Your task to perform on an android device: change the clock display to digital Image 0: 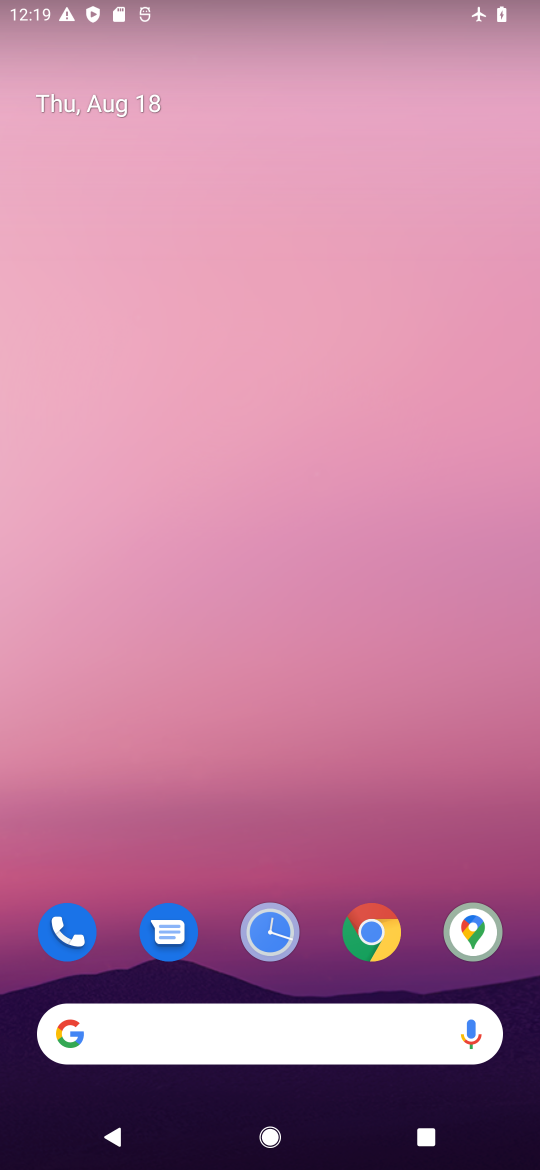
Step 0: drag from (217, 964) to (130, 137)
Your task to perform on an android device: change the clock display to digital Image 1: 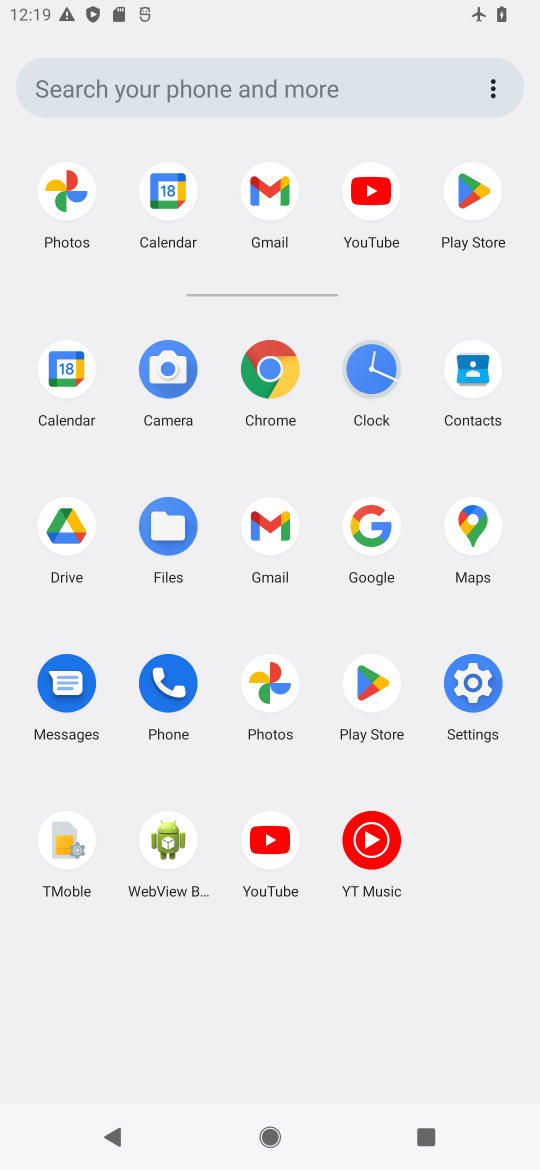
Step 1: click (369, 367)
Your task to perform on an android device: change the clock display to digital Image 2: 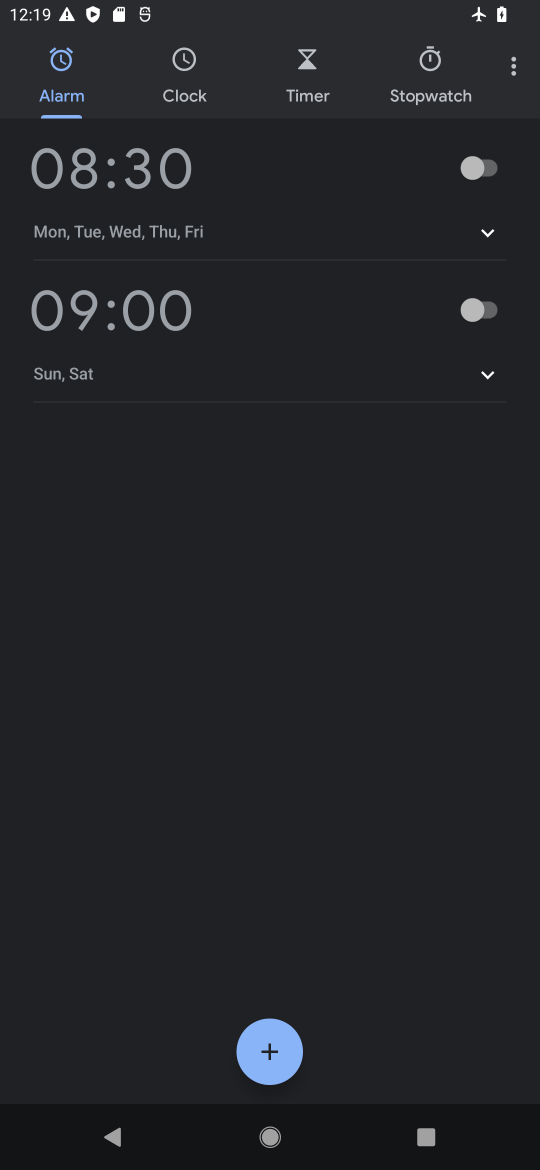
Step 2: click (513, 71)
Your task to perform on an android device: change the clock display to digital Image 3: 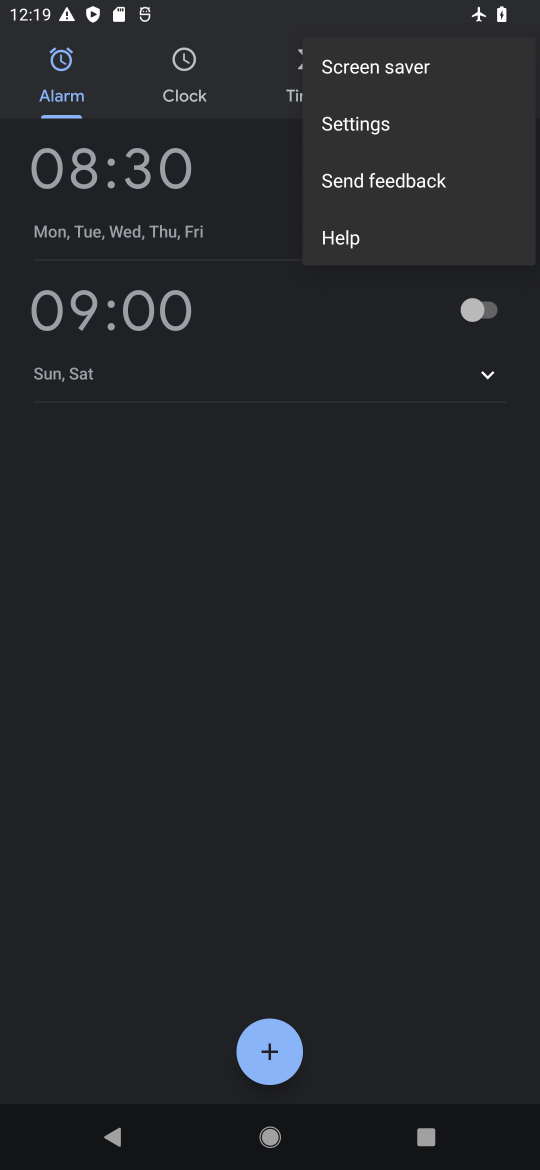
Step 3: click (370, 125)
Your task to perform on an android device: change the clock display to digital Image 4: 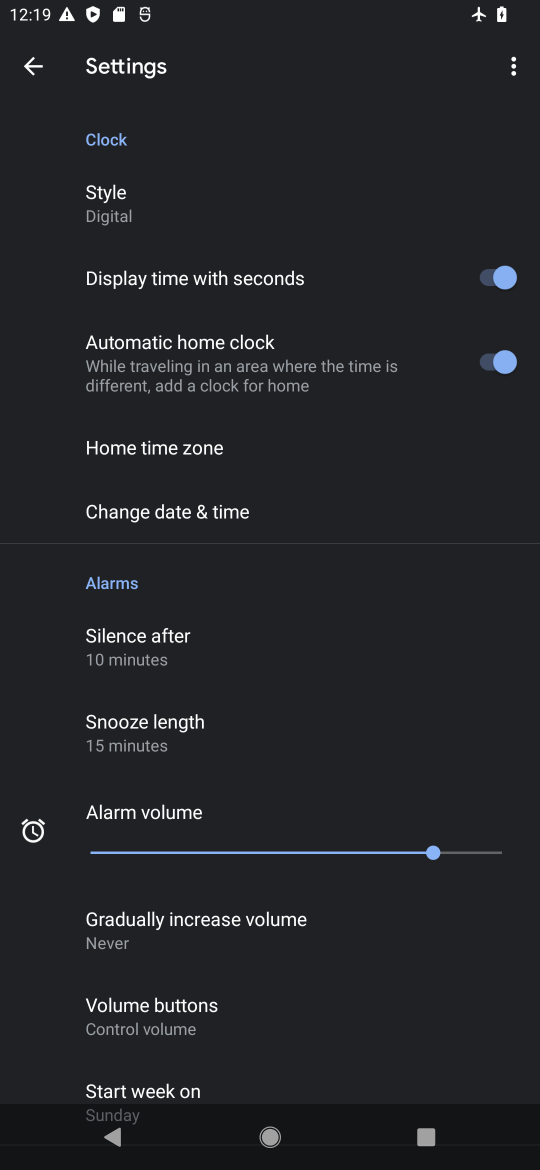
Step 4: click (105, 184)
Your task to perform on an android device: change the clock display to digital Image 5: 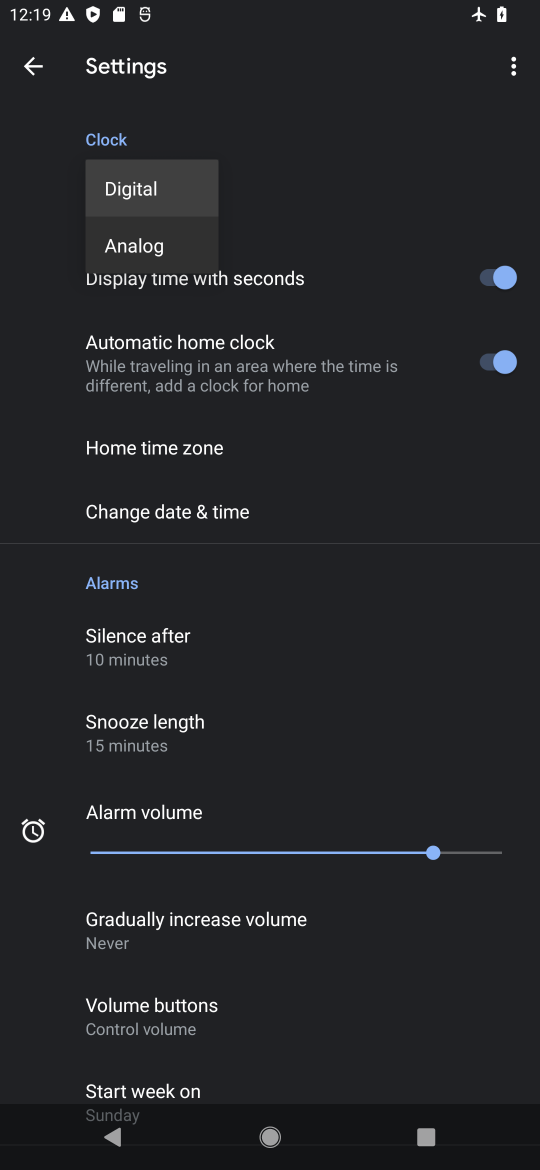
Step 5: click (130, 197)
Your task to perform on an android device: change the clock display to digital Image 6: 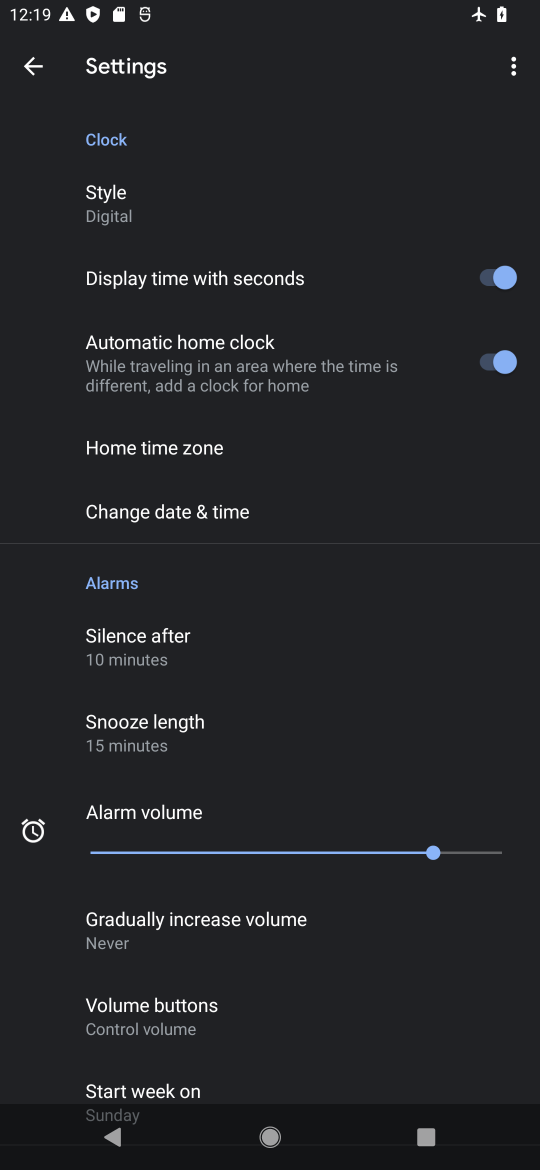
Step 6: task complete